Your task to perform on an android device: Open notification settings Image 0: 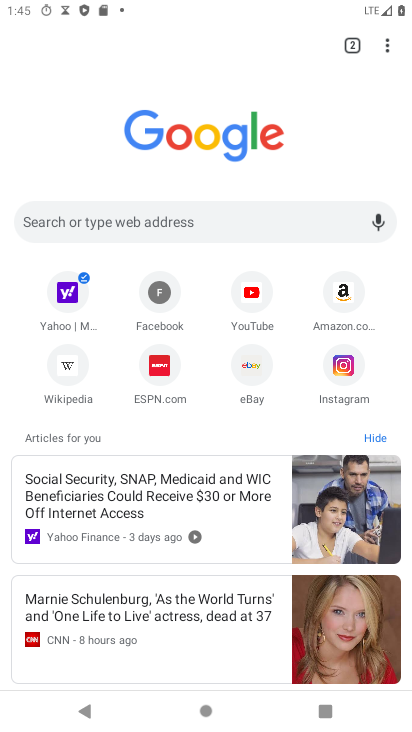
Step 0: press home button
Your task to perform on an android device: Open notification settings Image 1: 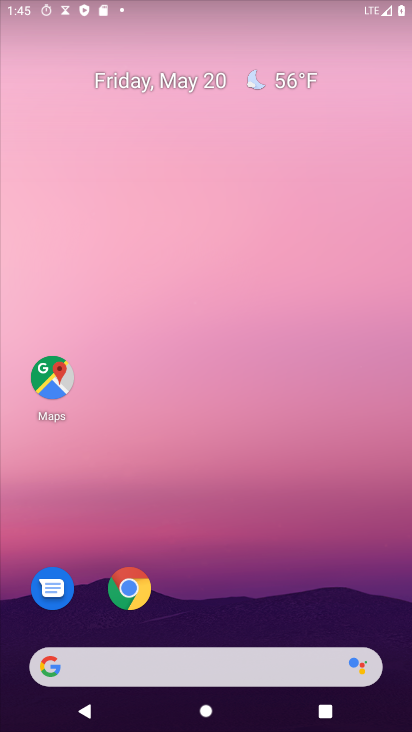
Step 1: drag from (44, 520) to (232, 126)
Your task to perform on an android device: Open notification settings Image 2: 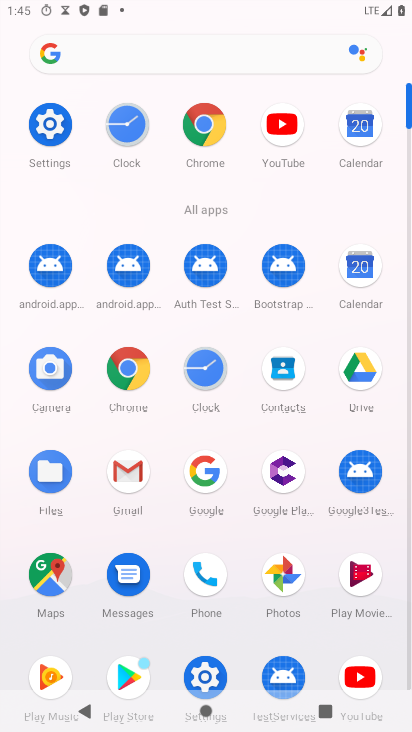
Step 2: click (48, 126)
Your task to perform on an android device: Open notification settings Image 3: 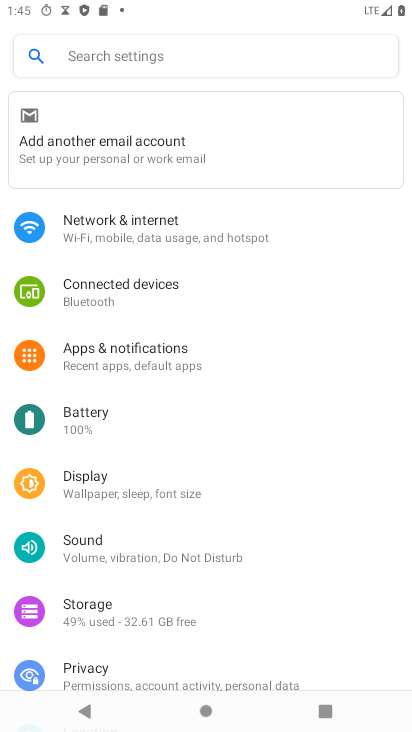
Step 3: click (91, 373)
Your task to perform on an android device: Open notification settings Image 4: 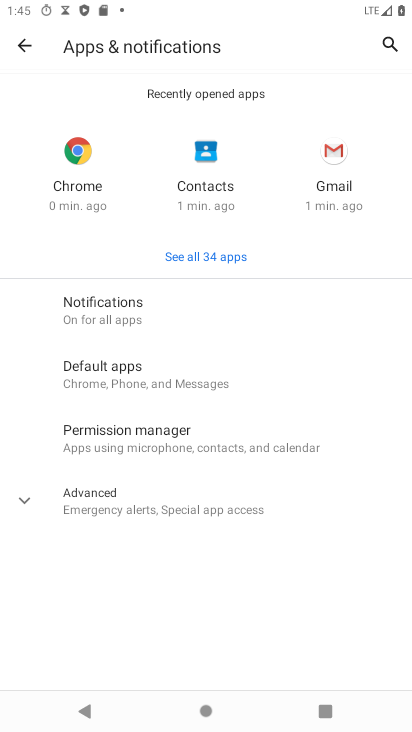
Step 4: click (159, 303)
Your task to perform on an android device: Open notification settings Image 5: 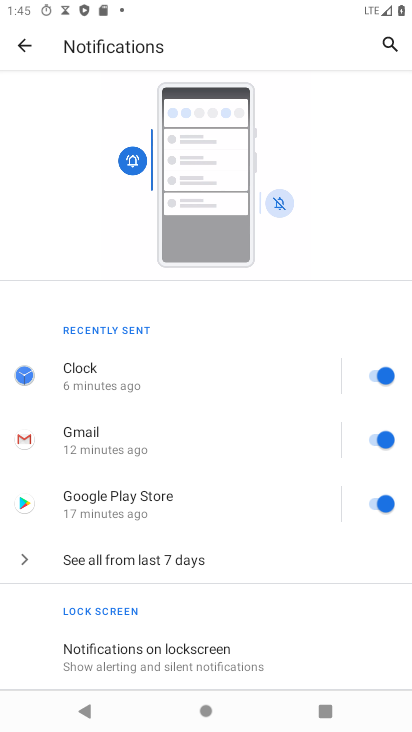
Step 5: task complete